Your task to perform on an android device: Toggle the flashlight Image 0: 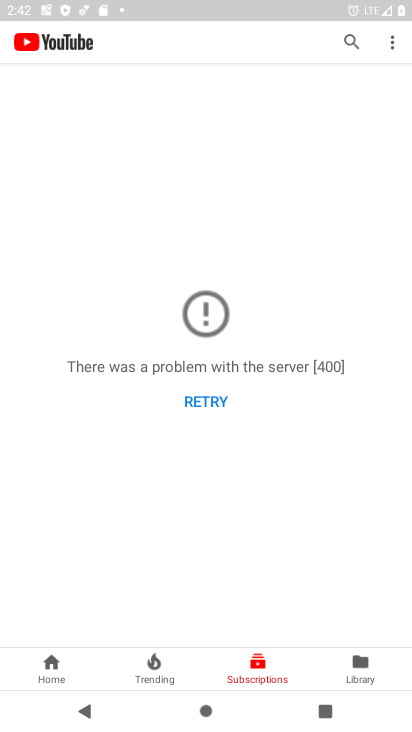
Step 0: press home button
Your task to perform on an android device: Toggle the flashlight Image 1: 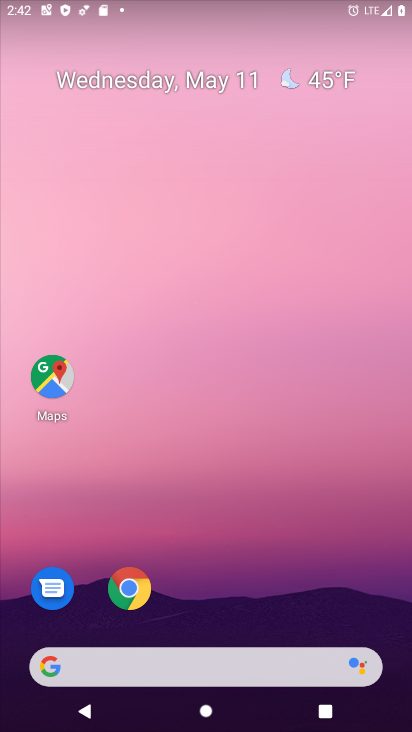
Step 1: drag from (205, 614) to (224, 314)
Your task to perform on an android device: Toggle the flashlight Image 2: 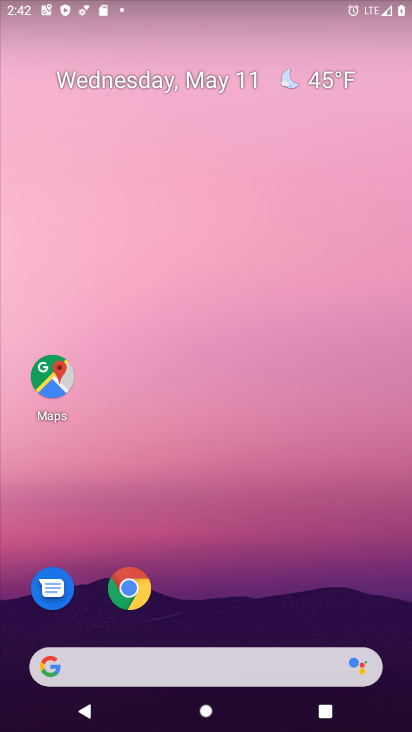
Step 2: drag from (242, 628) to (263, 121)
Your task to perform on an android device: Toggle the flashlight Image 3: 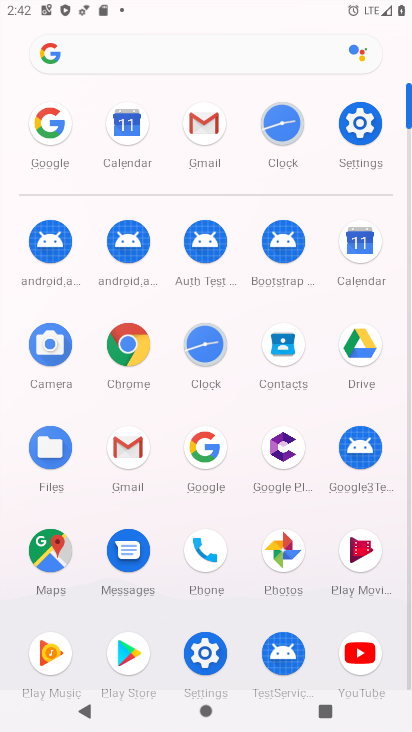
Step 3: click (364, 141)
Your task to perform on an android device: Toggle the flashlight Image 4: 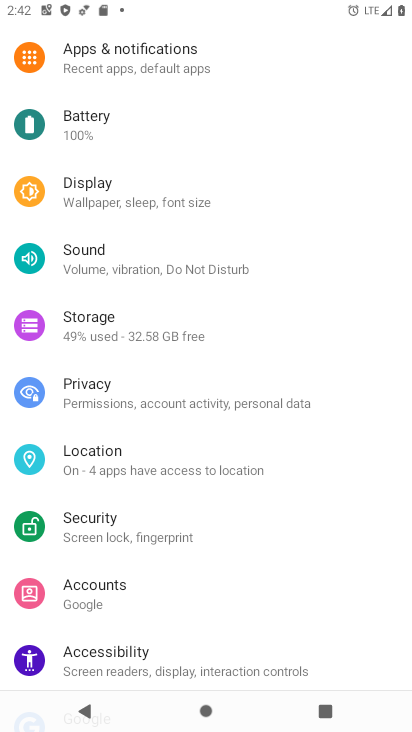
Step 4: click (166, 85)
Your task to perform on an android device: Toggle the flashlight Image 5: 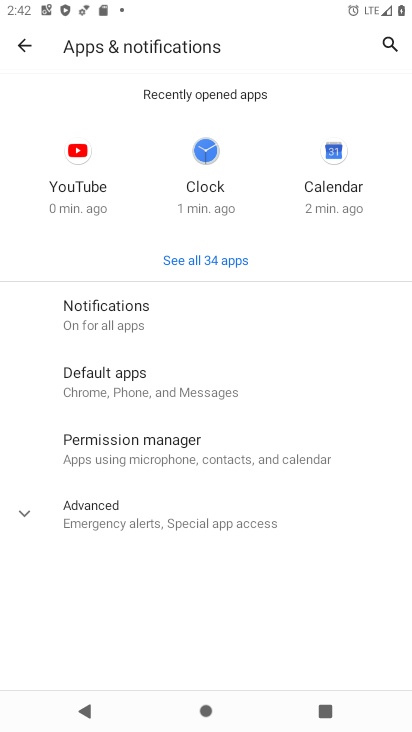
Step 5: task complete